Your task to perform on an android device: Open network settings Image 0: 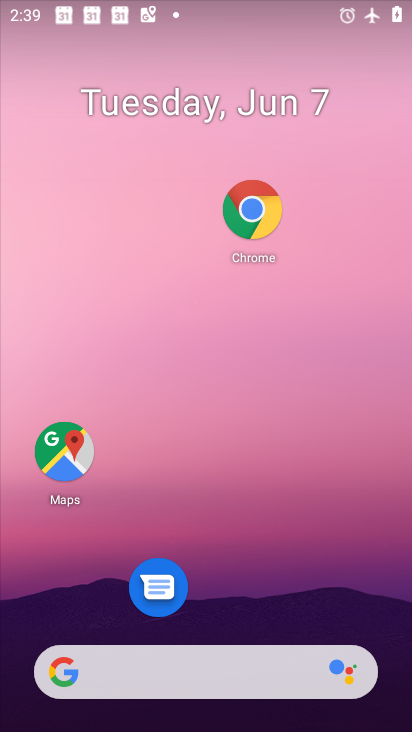
Step 0: drag from (257, 649) to (298, 116)
Your task to perform on an android device: Open network settings Image 1: 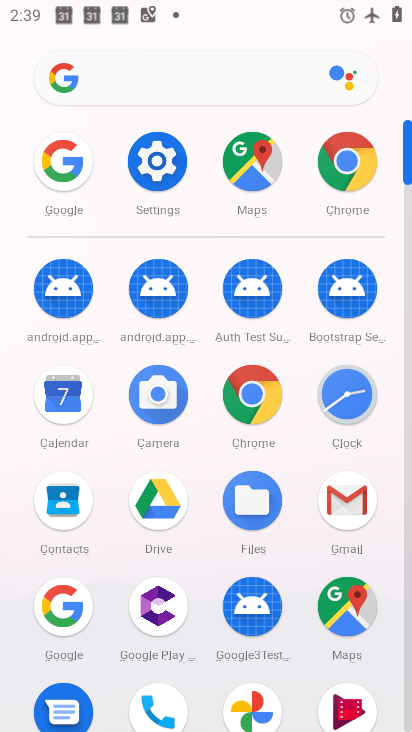
Step 1: click (153, 167)
Your task to perform on an android device: Open network settings Image 2: 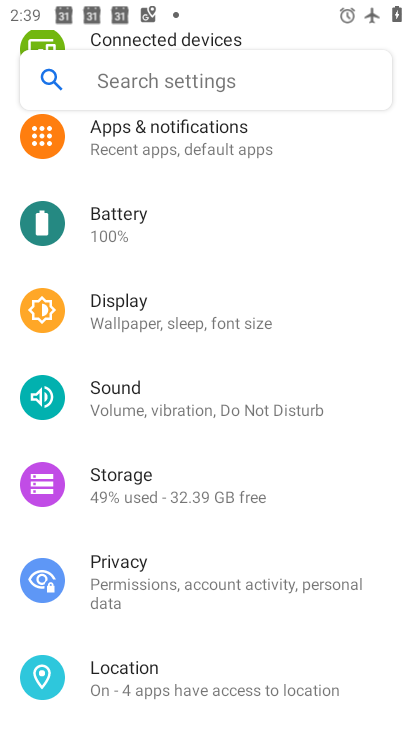
Step 2: drag from (207, 228) to (227, 727)
Your task to perform on an android device: Open network settings Image 3: 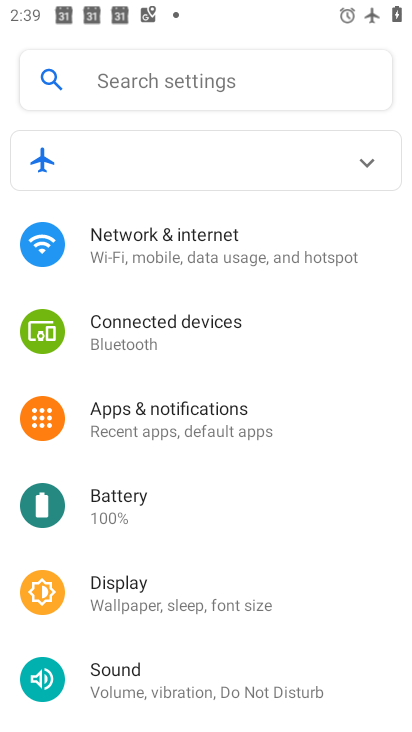
Step 3: click (203, 248)
Your task to perform on an android device: Open network settings Image 4: 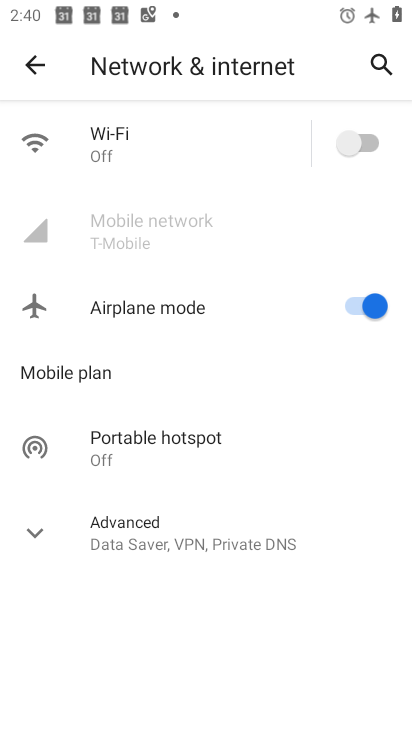
Step 4: task complete